Your task to perform on an android device: Go to calendar. Show me events next week Image 0: 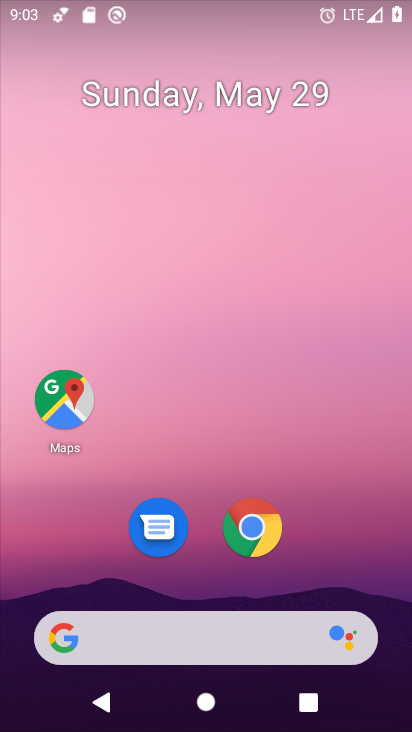
Step 0: press home button
Your task to perform on an android device: Go to calendar. Show me events next week Image 1: 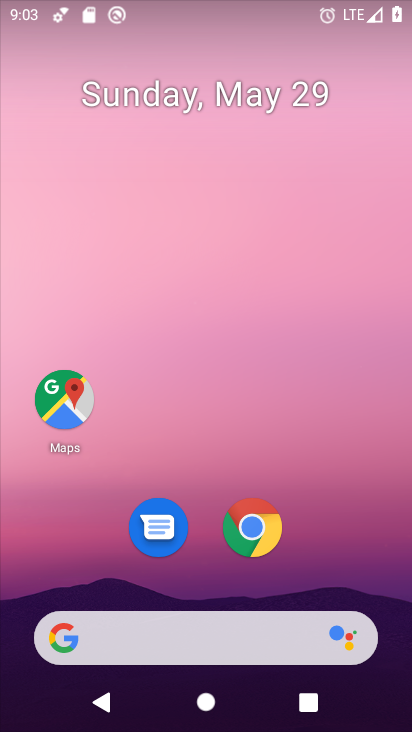
Step 1: press home button
Your task to perform on an android device: Go to calendar. Show me events next week Image 2: 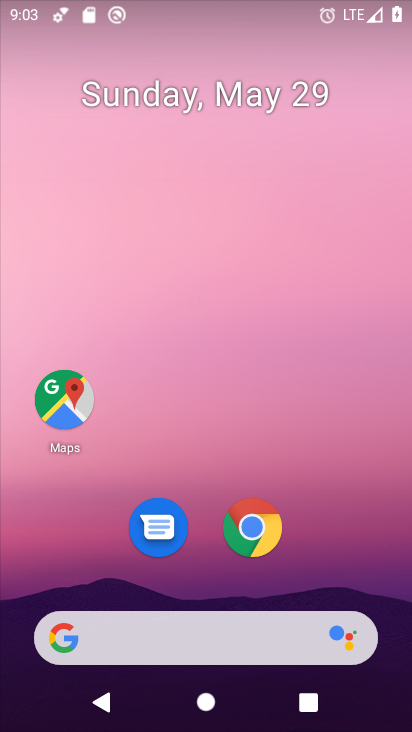
Step 2: drag from (211, 580) to (263, 9)
Your task to perform on an android device: Go to calendar. Show me events next week Image 3: 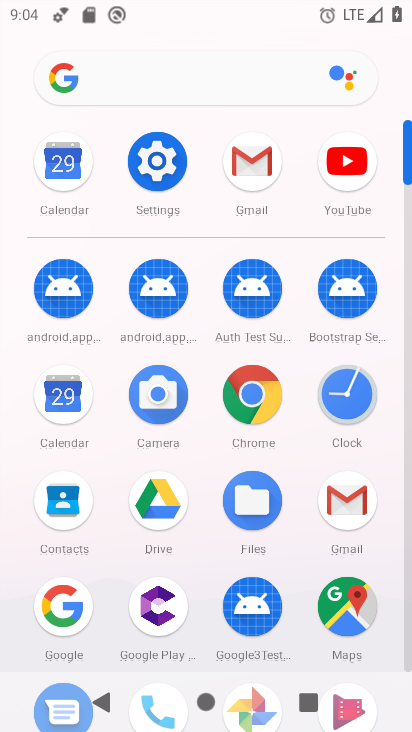
Step 3: click (63, 392)
Your task to perform on an android device: Go to calendar. Show me events next week Image 4: 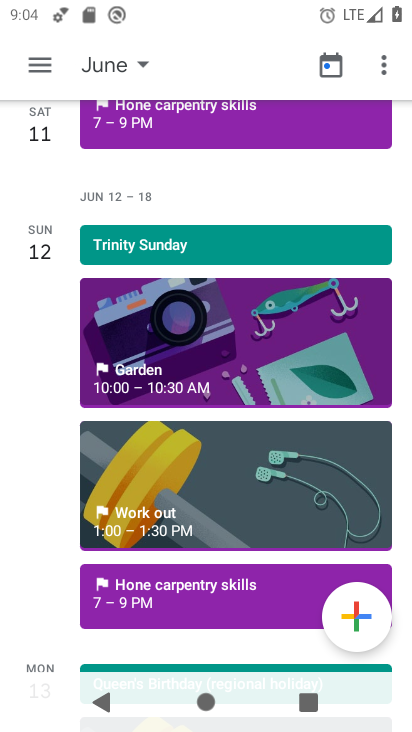
Step 4: click (35, 64)
Your task to perform on an android device: Go to calendar. Show me events next week Image 5: 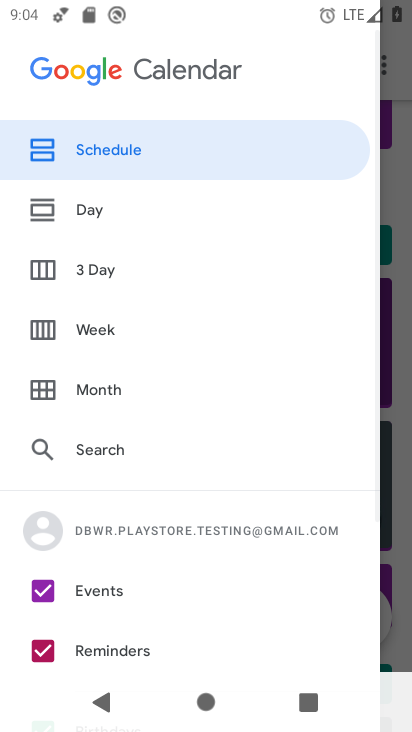
Step 5: click (77, 320)
Your task to perform on an android device: Go to calendar. Show me events next week Image 6: 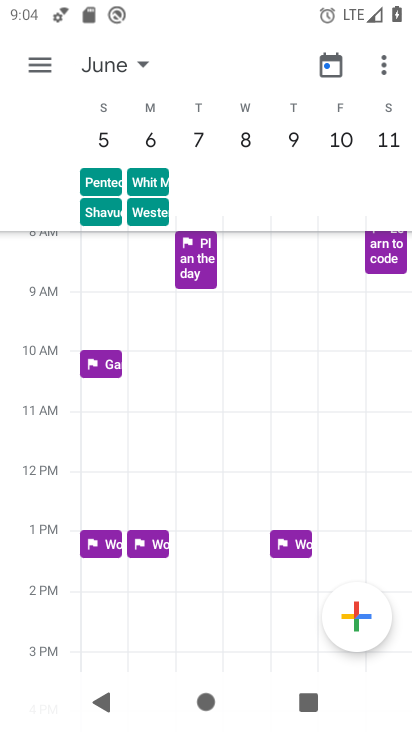
Step 6: click (98, 137)
Your task to perform on an android device: Go to calendar. Show me events next week Image 7: 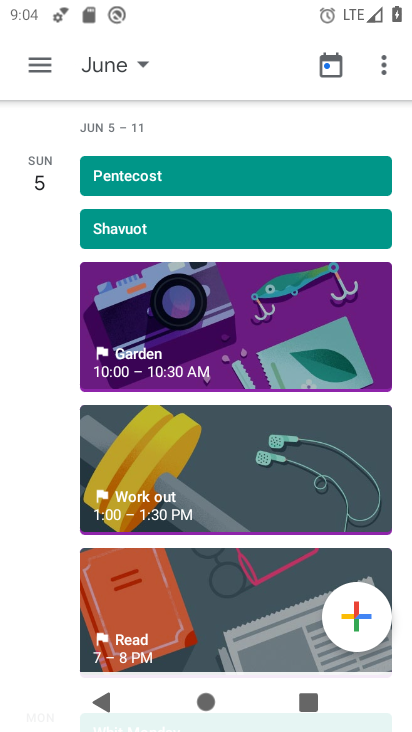
Step 7: task complete